Your task to perform on an android device: turn smart compose on in the gmail app Image 0: 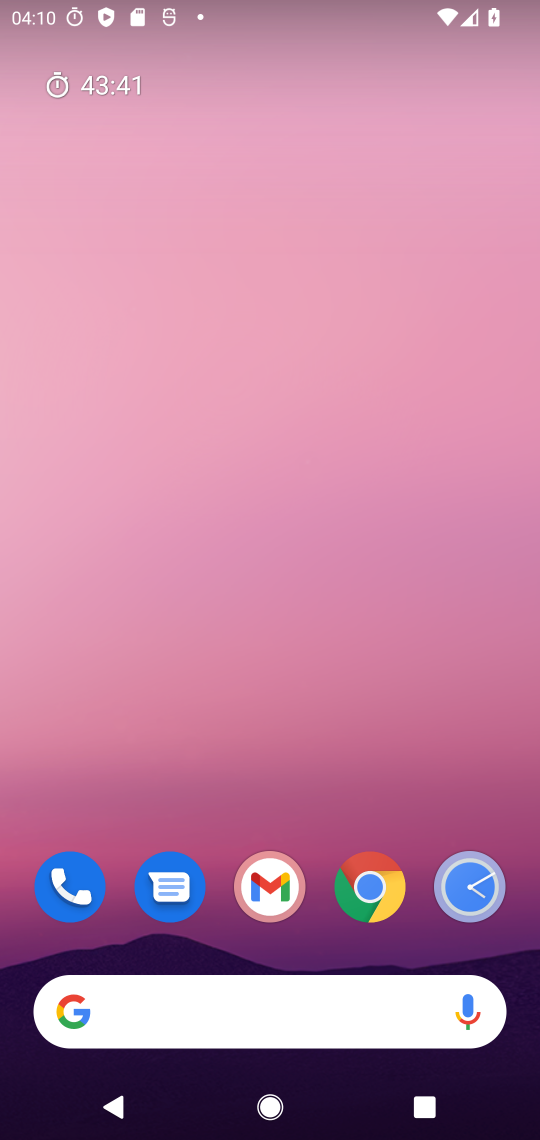
Step 0: press home button
Your task to perform on an android device: turn smart compose on in the gmail app Image 1: 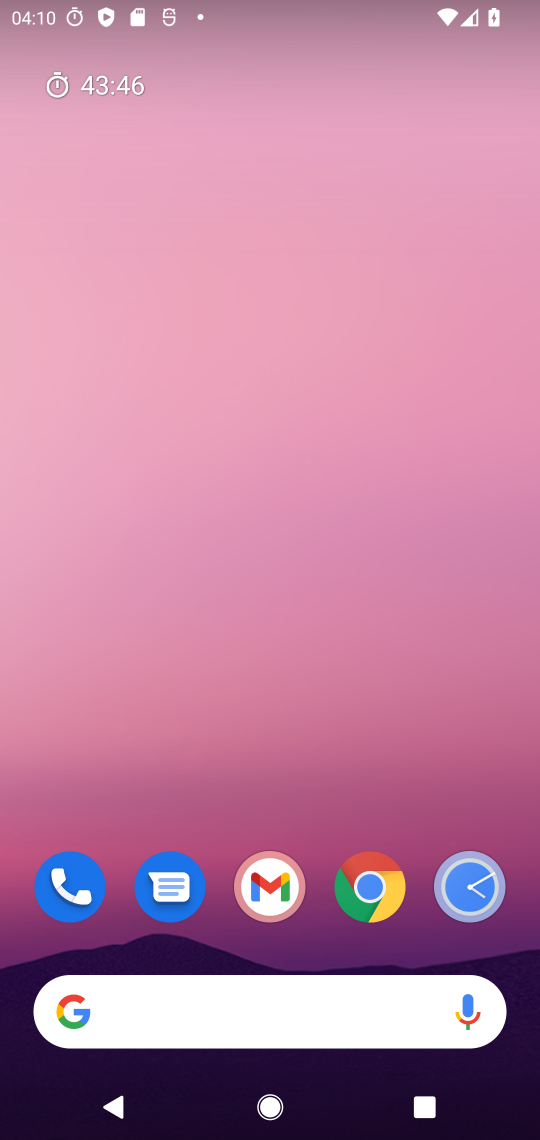
Step 1: drag from (325, 760) to (381, 328)
Your task to perform on an android device: turn smart compose on in the gmail app Image 2: 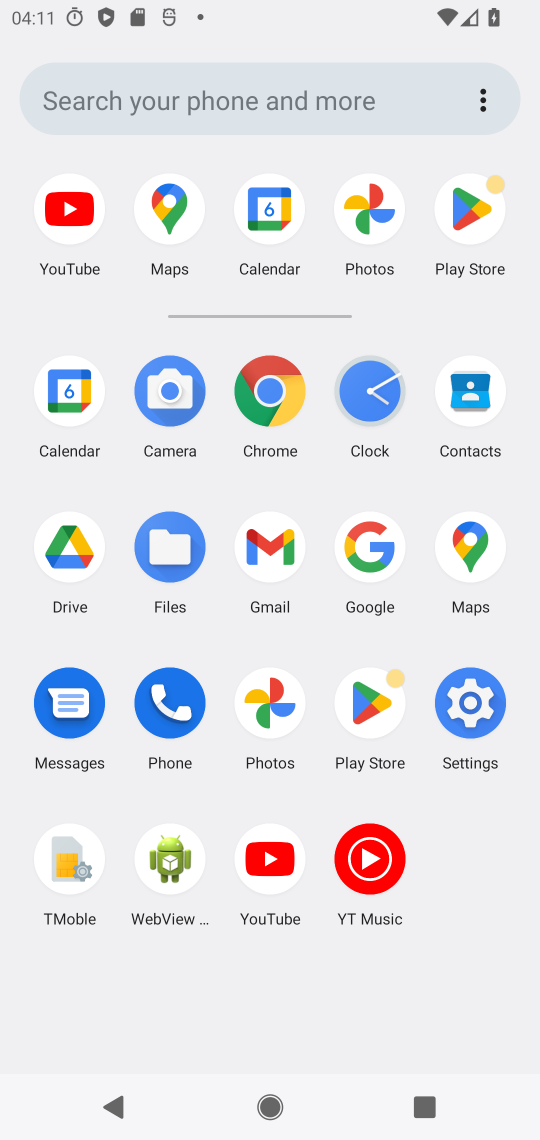
Step 2: click (273, 538)
Your task to perform on an android device: turn smart compose on in the gmail app Image 3: 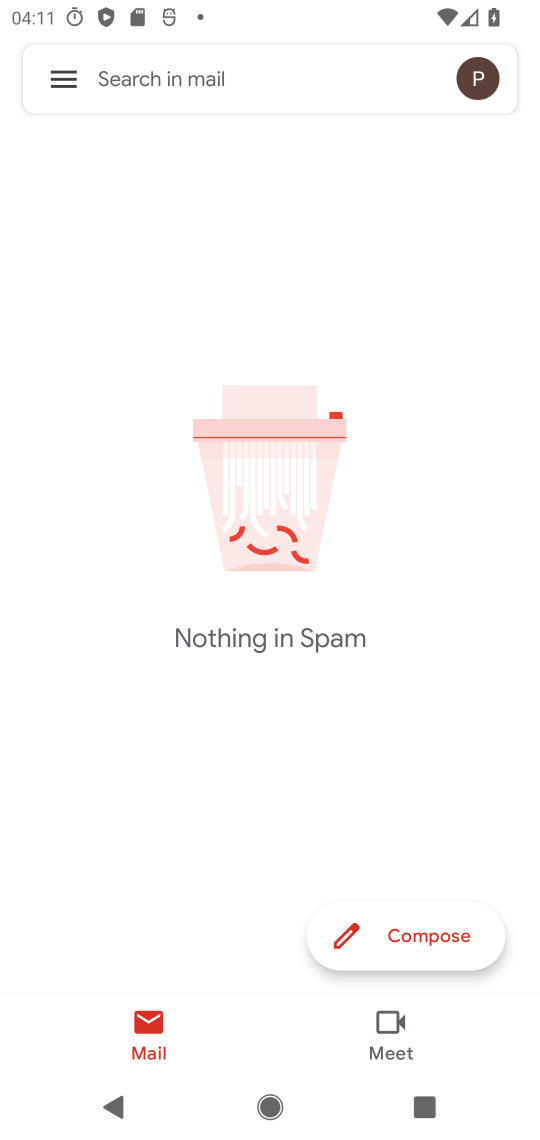
Step 3: click (64, 72)
Your task to perform on an android device: turn smart compose on in the gmail app Image 4: 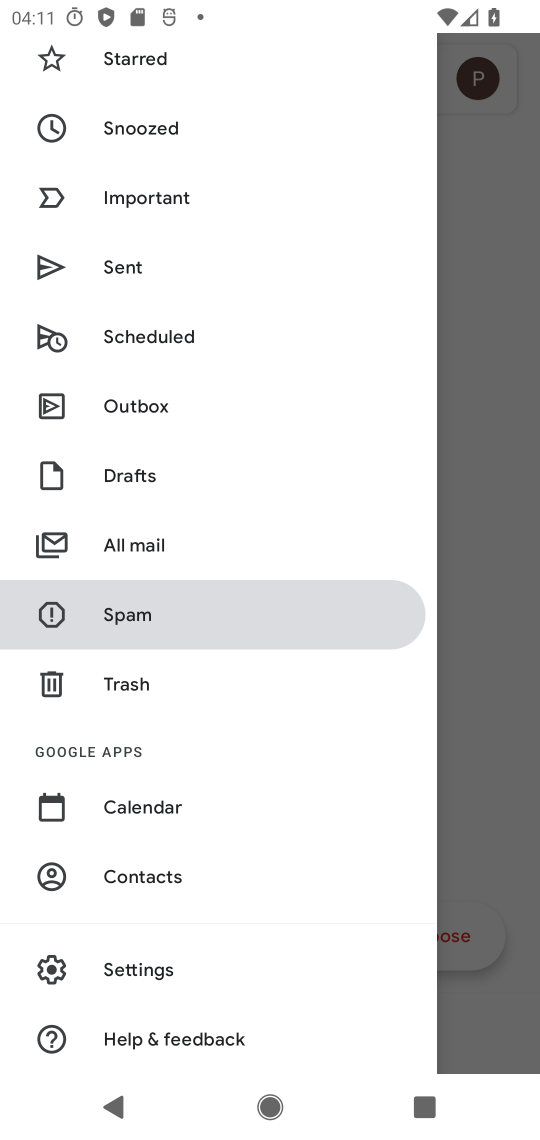
Step 4: click (203, 967)
Your task to perform on an android device: turn smart compose on in the gmail app Image 5: 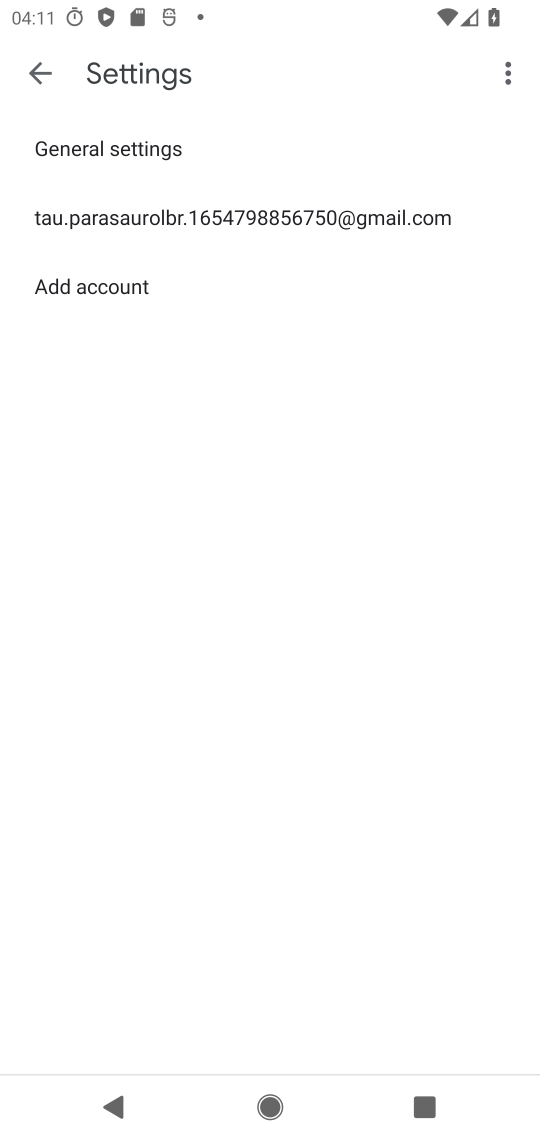
Step 5: click (309, 214)
Your task to perform on an android device: turn smart compose on in the gmail app Image 6: 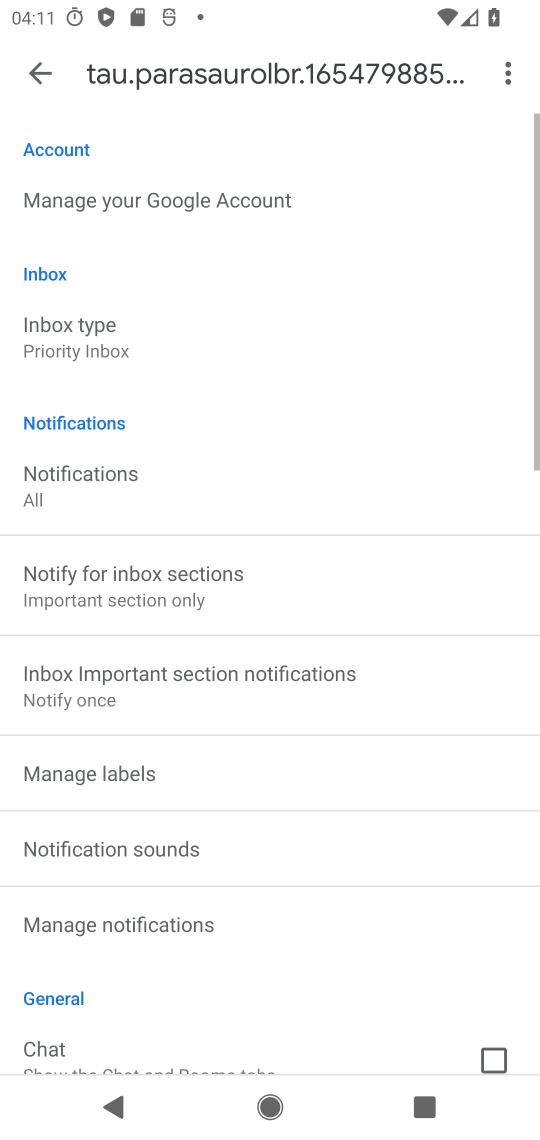
Step 6: task complete